Your task to perform on an android device: delete browsing data in the chrome app Image 0: 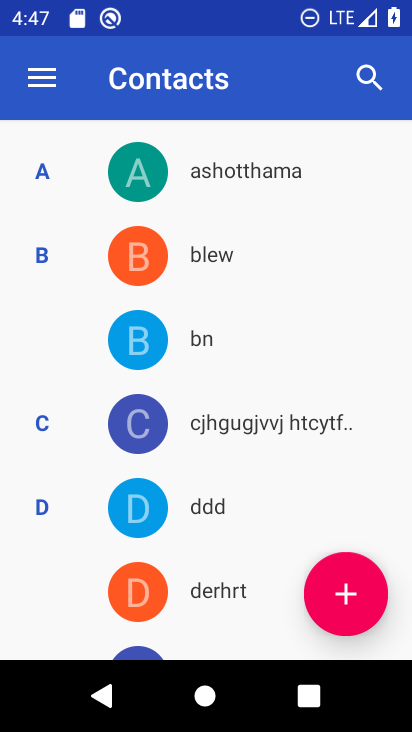
Step 0: press back button
Your task to perform on an android device: delete browsing data in the chrome app Image 1: 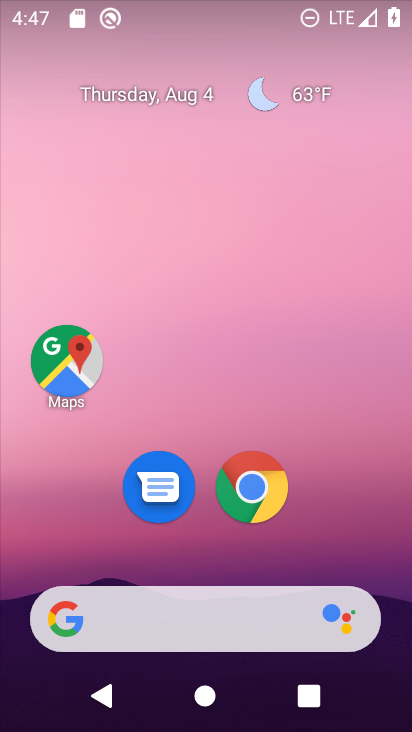
Step 1: click (245, 478)
Your task to perform on an android device: delete browsing data in the chrome app Image 2: 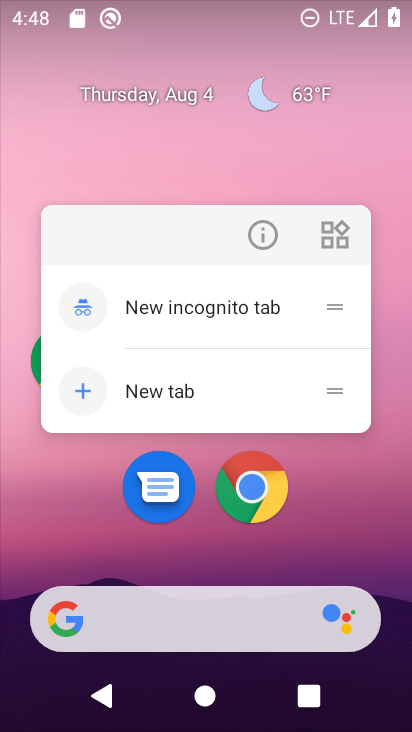
Step 2: click (264, 474)
Your task to perform on an android device: delete browsing data in the chrome app Image 3: 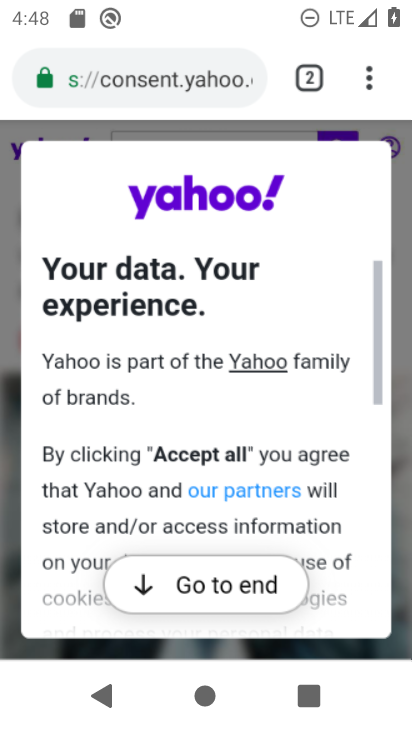
Step 3: drag from (379, 65) to (109, 446)
Your task to perform on an android device: delete browsing data in the chrome app Image 4: 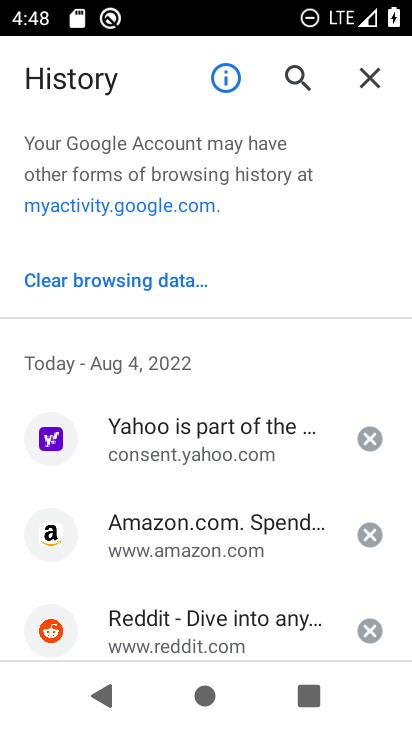
Step 4: click (123, 270)
Your task to perform on an android device: delete browsing data in the chrome app Image 5: 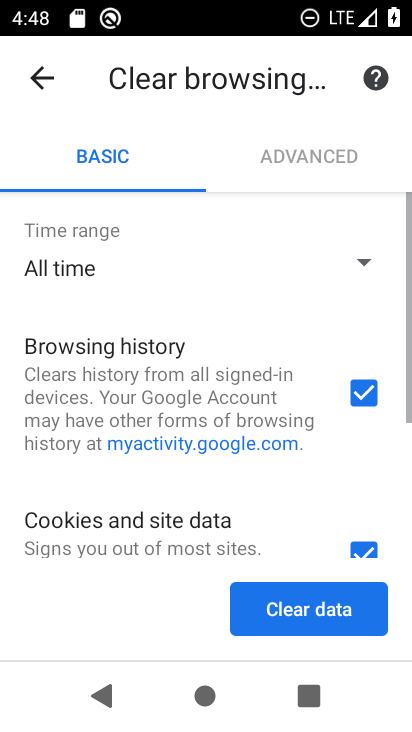
Step 5: drag from (182, 486) to (221, 107)
Your task to perform on an android device: delete browsing data in the chrome app Image 6: 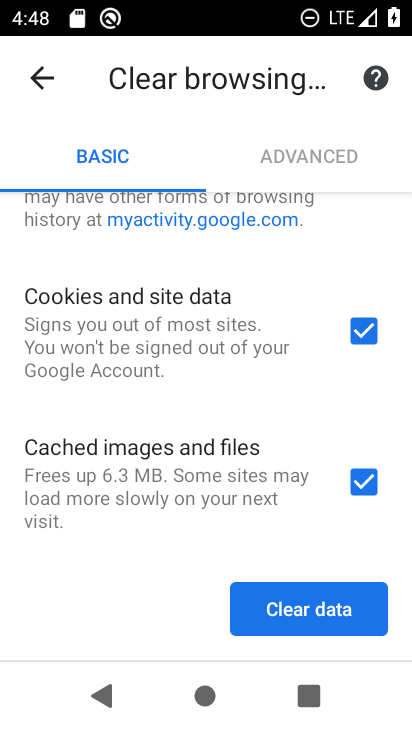
Step 6: click (312, 613)
Your task to perform on an android device: delete browsing data in the chrome app Image 7: 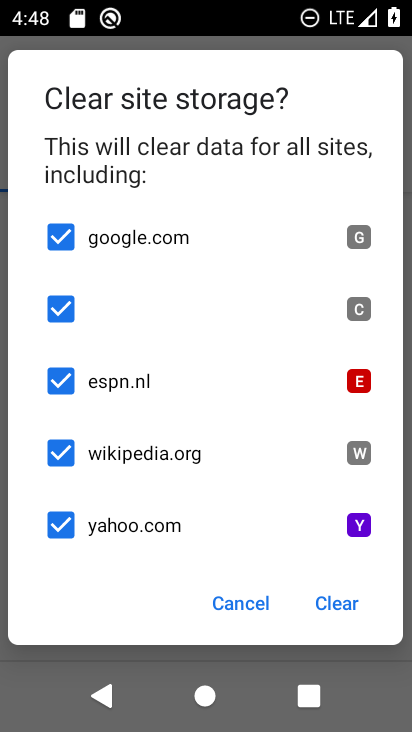
Step 7: click (316, 606)
Your task to perform on an android device: delete browsing data in the chrome app Image 8: 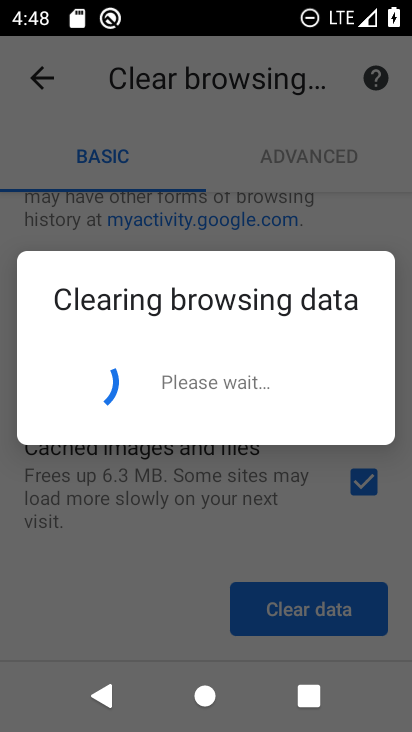
Step 8: task complete